Your task to perform on an android device: change the clock display to analog Image 0: 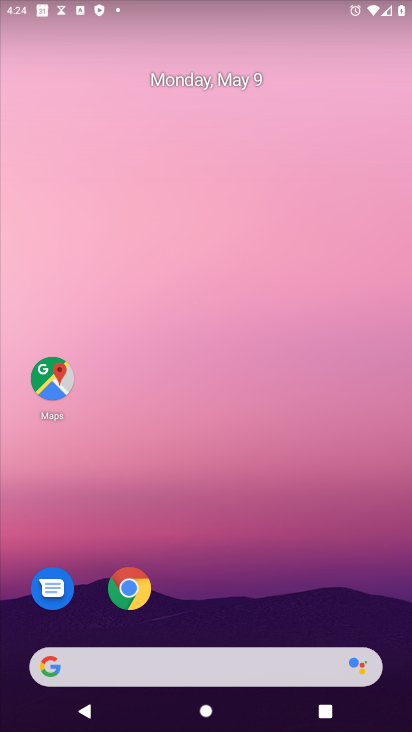
Step 0: drag from (276, 366) to (213, 61)
Your task to perform on an android device: change the clock display to analog Image 1: 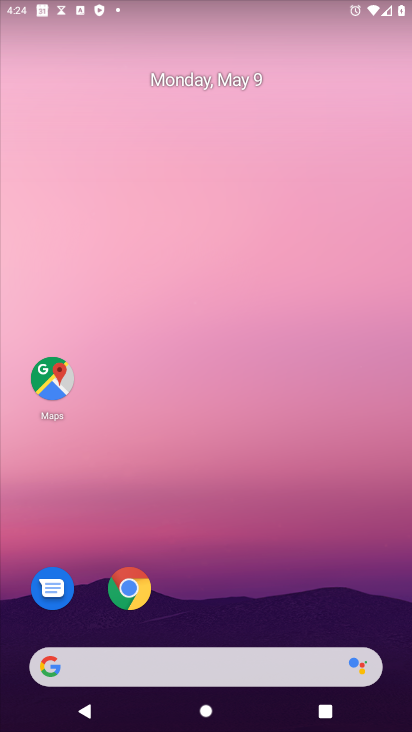
Step 1: drag from (237, 518) to (202, 25)
Your task to perform on an android device: change the clock display to analog Image 2: 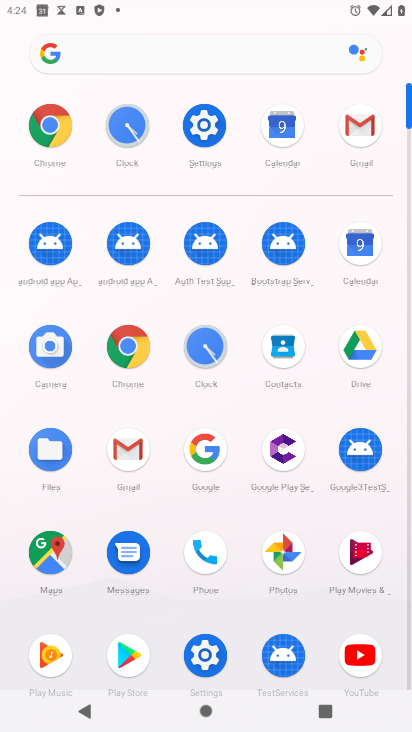
Step 2: click (205, 357)
Your task to perform on an android device: change the clock display to analog Image 3: 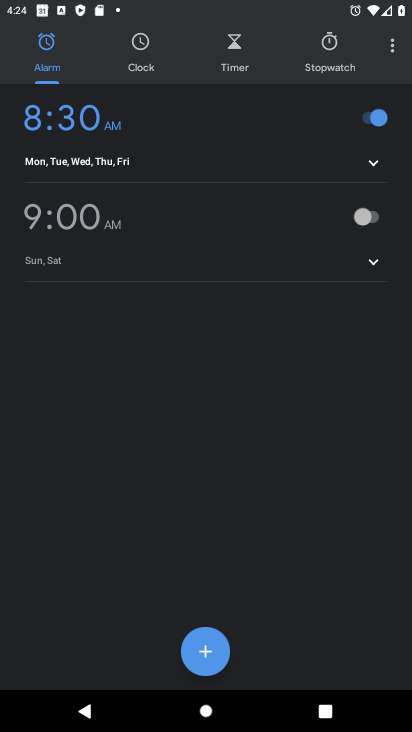
Step 3: click (384, 53)
Your task to perform on an android device: change the clock display to analog Image 4: 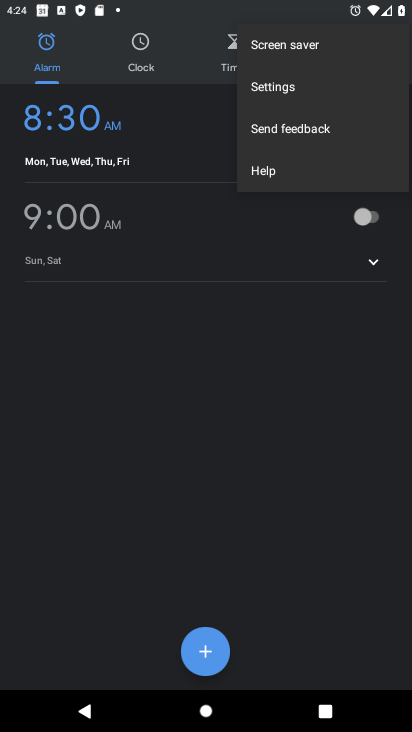
Step 4: click (271, 75)
Your task to perform on an android device: change the clock display to analog Image 5: 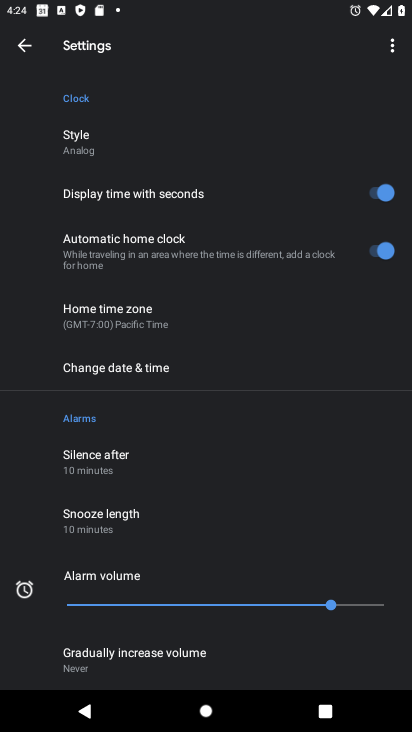
Step 5: click (253, 131)
Your task to perform on an android device: change the clock display to analog Image 6: 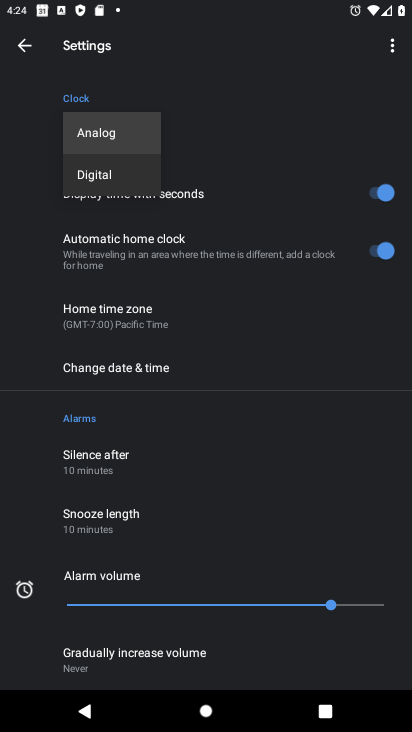
Step 6: task complete